Your task to perform on an android device: Open CNN.com Image 0: 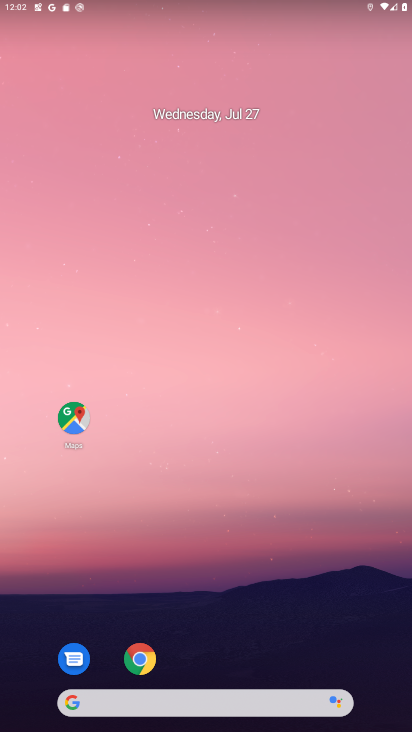
Step 0: drag from (279, 626) to (256, 3)
Your task to perform on an android device: Open CNN.com Image 1: 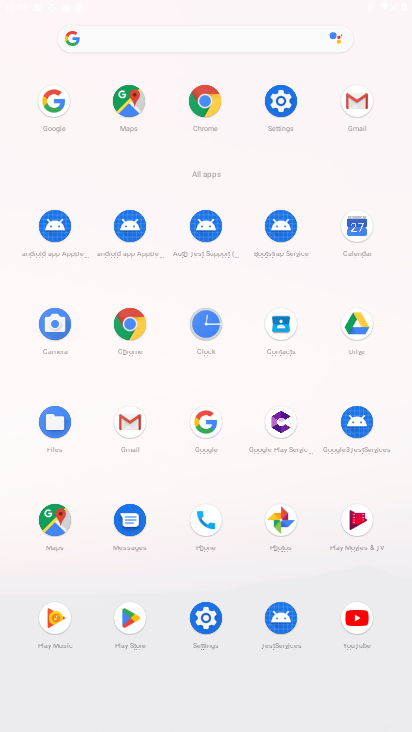
Step 1: click (132, 313)
Your task to perform on an android device: Open CNN.com Image 2: 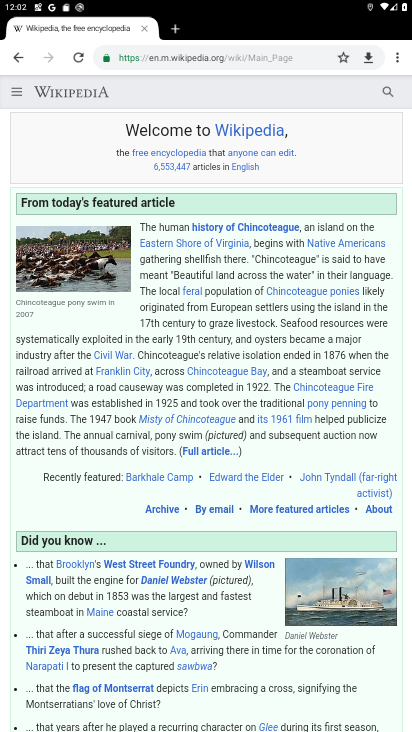
Step 2: click (254, 58)
Your task to perform on an android device: Open CNN.com Image 3: 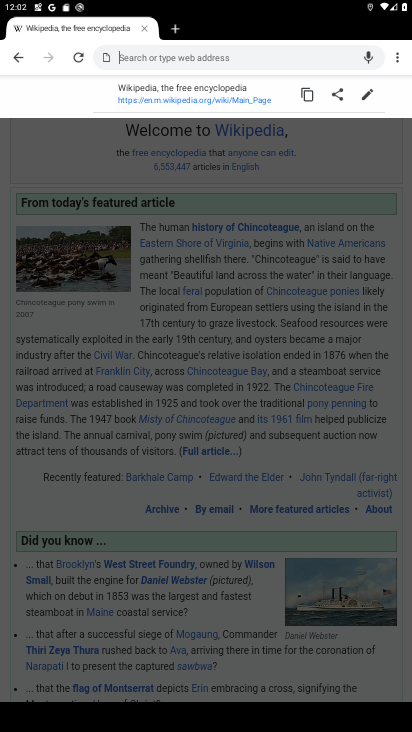
Step 3: type "cnn.com"
Your task to perform on an android device: Open CNN.com Image 4: 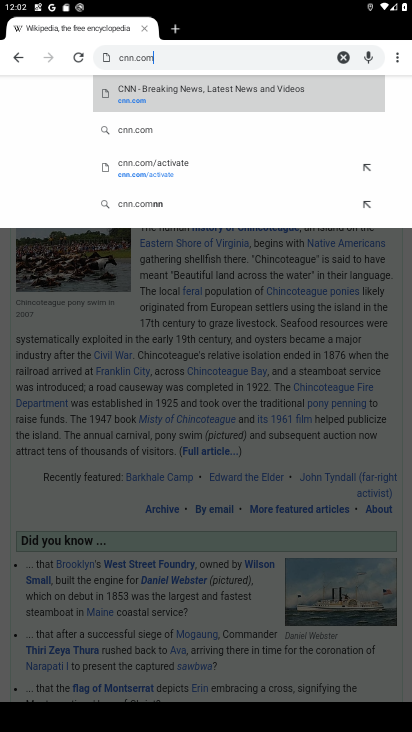
Step 4: click (153, 95)
Your task to perform on an android device: Open CNN.com Image 5: 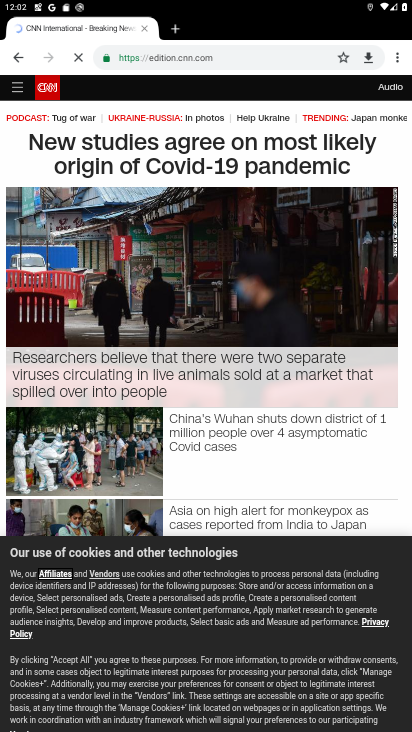
Step 5: task complete